Your task to perform on an android device: find snoozed emails in the gmail app Image 0: 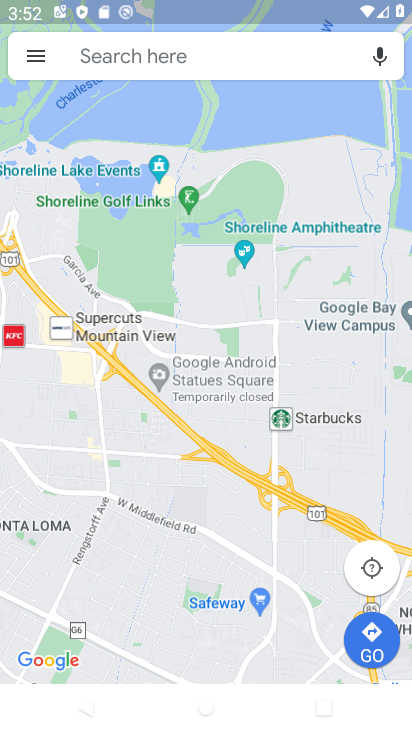
Step 0: press back button
Your task to perform on an android device: find snoozed emails in the gmail app Image 1: 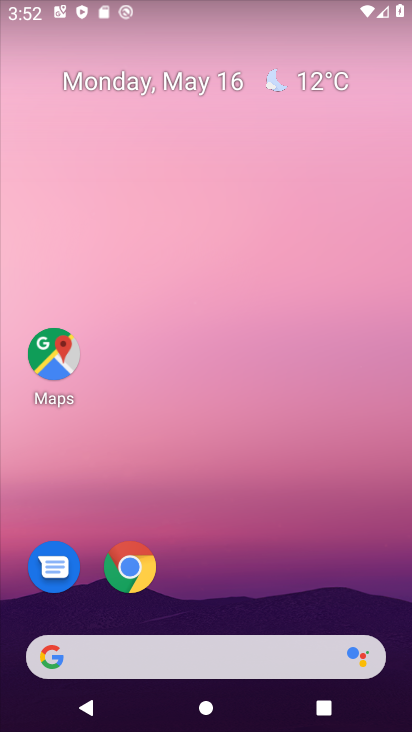
Step 1: drag from (240, 581) to (190, 27)
Your task to perform on an android device: find snoozed emails in the gmail app Image 2: 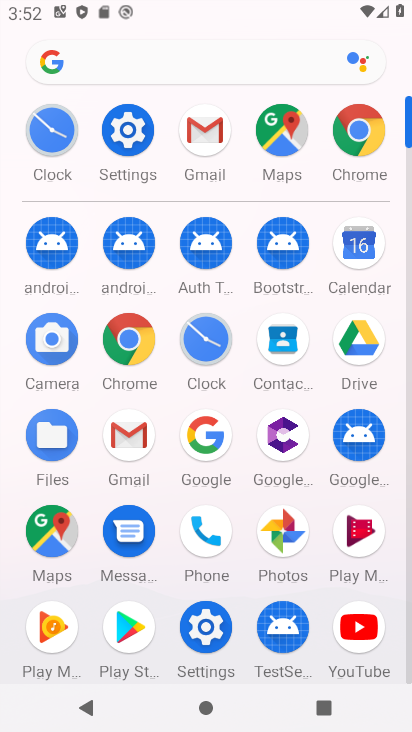
Step 2: click (128, 427)
Your task to perform on an android device: find snoozed emails in the gmail app Image 3: 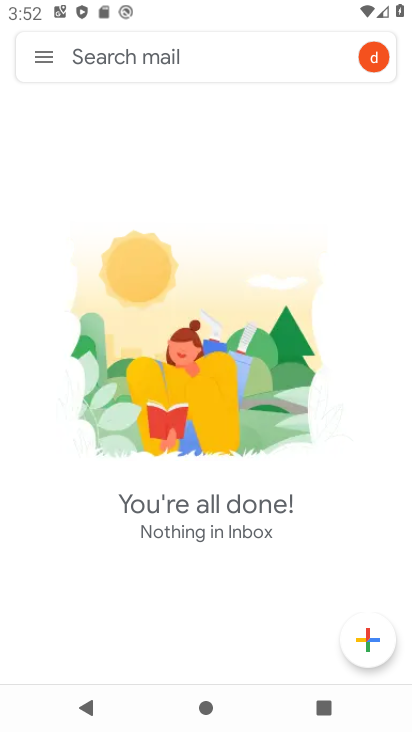
Step 3: click (50, 46)
Your task to perform on an android device: find snoozed emails in the gmail app Image 4: 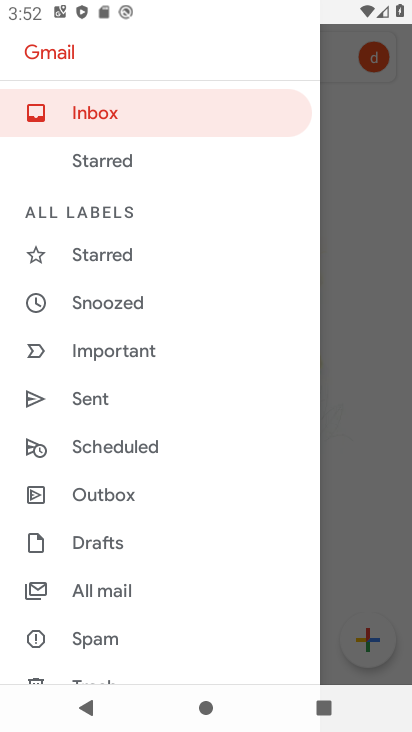
Step 4: click (117, 302)
Your task to perform on an android device: find snoozed emails in the gmail app Image 5: 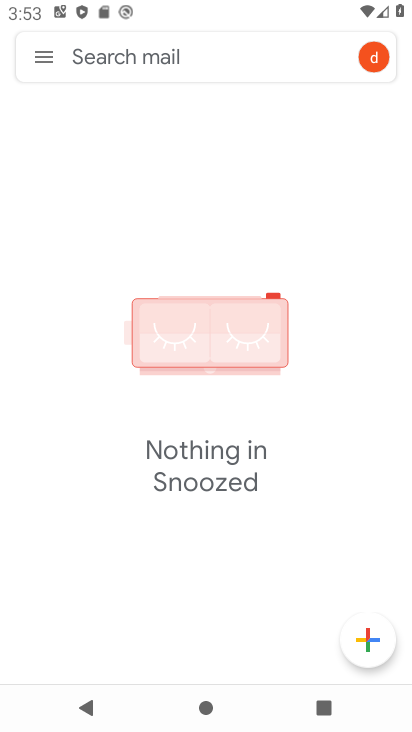
Step 5: task complete